Your task to perform on an android device: change alarm snooze length Image 0: 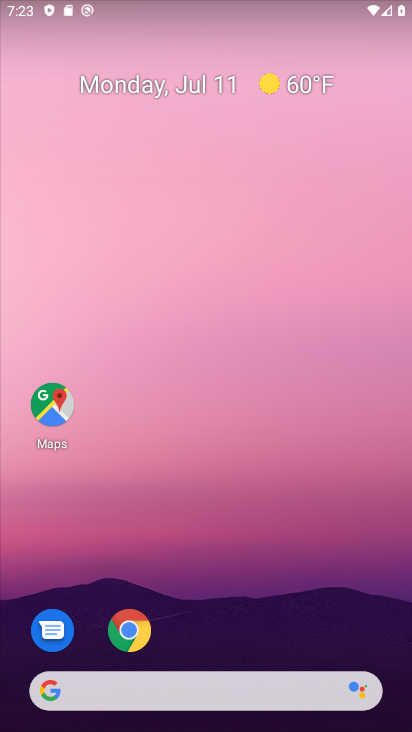
Step 0: drag from (362, 621) to (257, 123)
Your task to perform on an android device: change alarm snooze length Image 1: 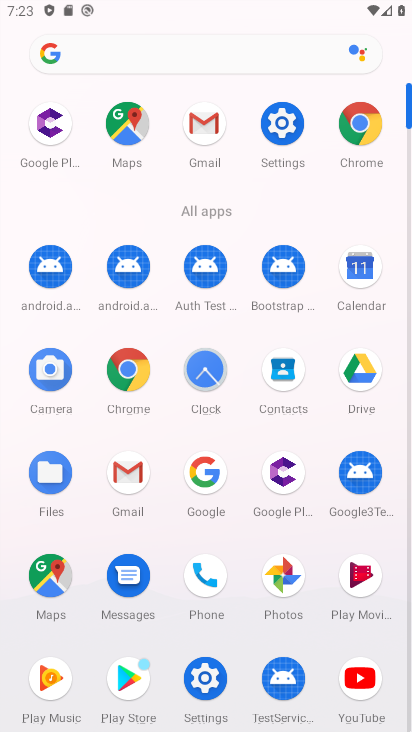
Step 1: click (209, 364)
Your task to perform on an android device: change alarm snooze length Image 2: 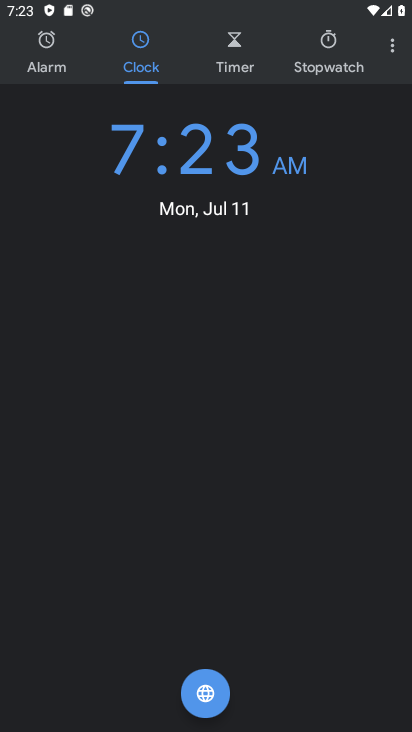
Step 2: click (394, 53)
Your task to perform on an android device: change alarm snooze length Image 3: 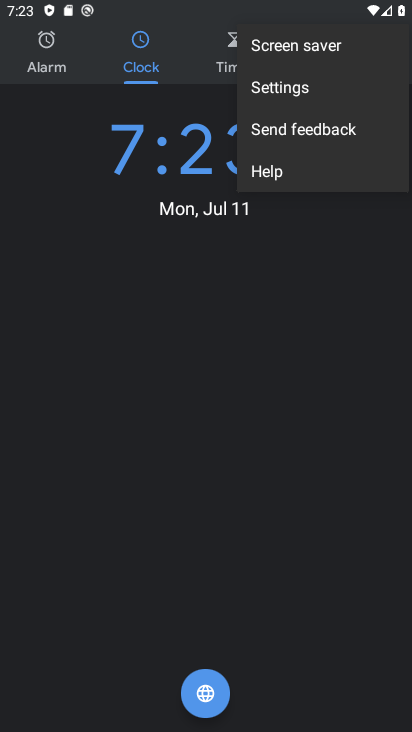
Step 3: click (290, 83)
Your task to perform on an android device: change alarm snooze length Image 4: 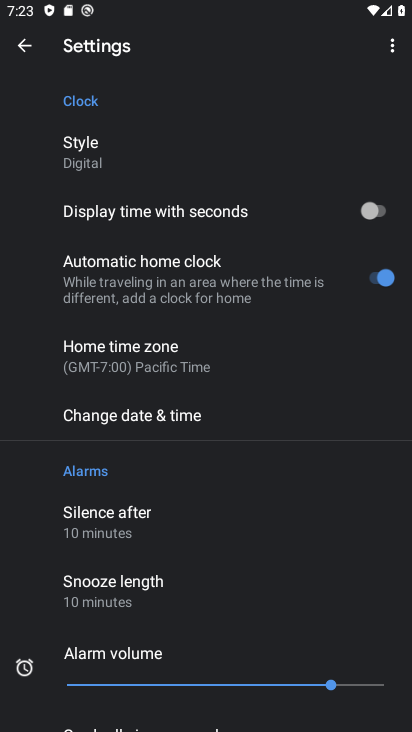
Step 4: click (104, 595)
Your task to perform on an android device: change alarm snooze length Image 5: 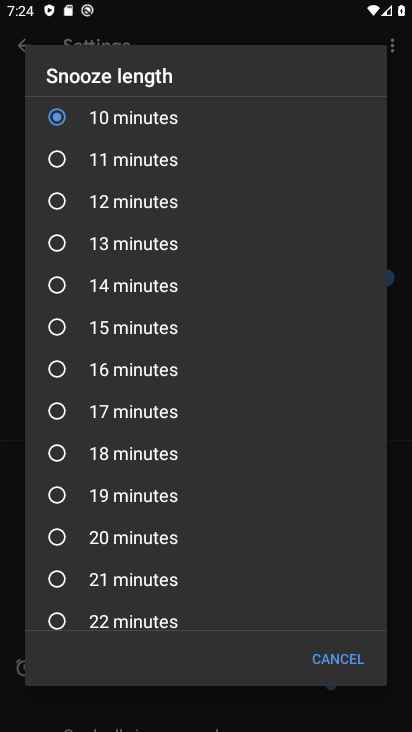
Step 5: click (58, 322)
Your task to perform on an android device: change alarm snooze length Image 6: 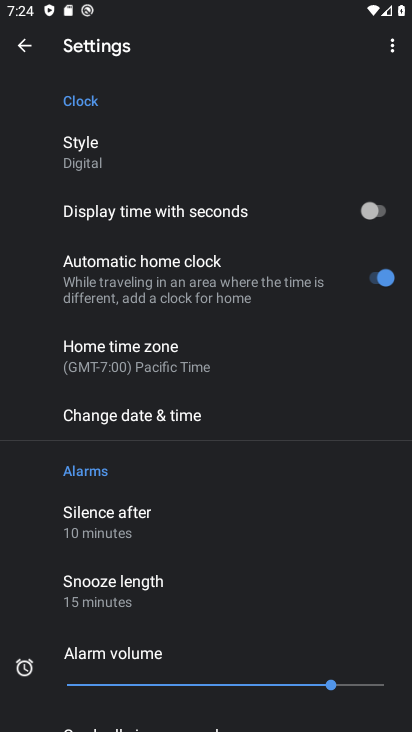
Step 6: task complete